Your task to perform on an android device: move a message to another label in the gmail app Image 0: 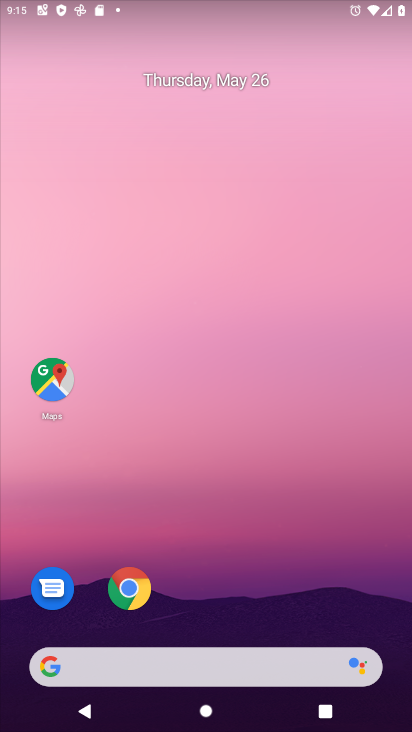
Step 0: drag from (393, 660) to (330, 109)
Your task to perform on an android device: move a message to another label in the gmail app Image 1: 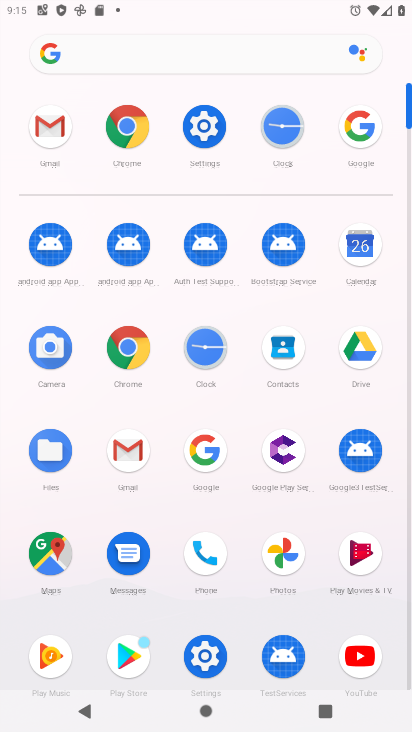
Step 1: click (130, 439)
Your task to perform on an android device: move a message to another label in the gmail app Image 2: 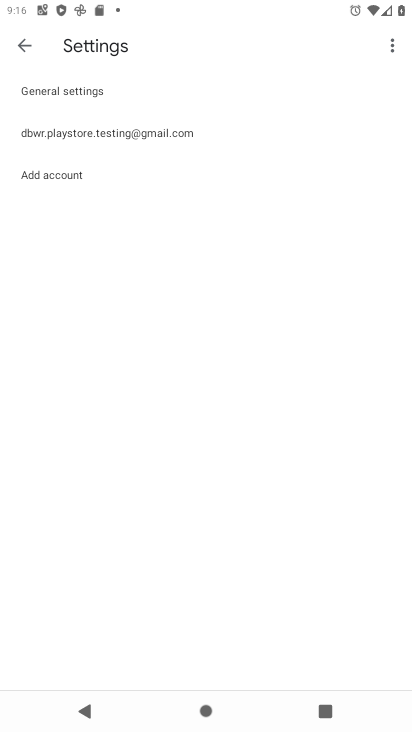
Step 2: task complete